Your task to perform on an android device: turn on javascript in the chrome app Image 0: 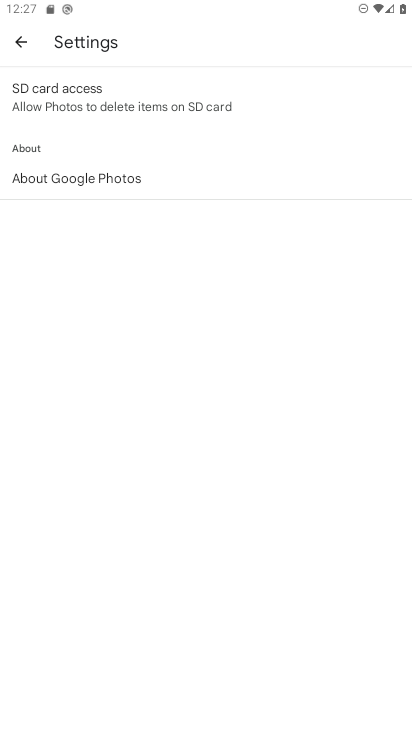
Step 0: press home button
Your task to perform on an android device: turn on javascript in the chrome app Image 1: 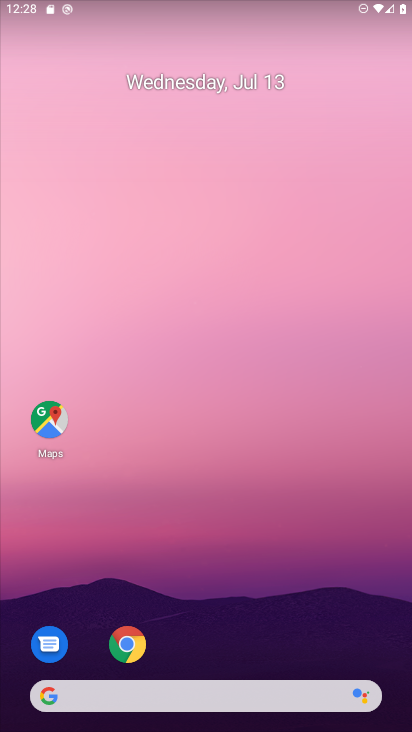
Step 1: click (133, 642)
Your task to perform on an android device: turn on javascript in the chrome app Image 2: 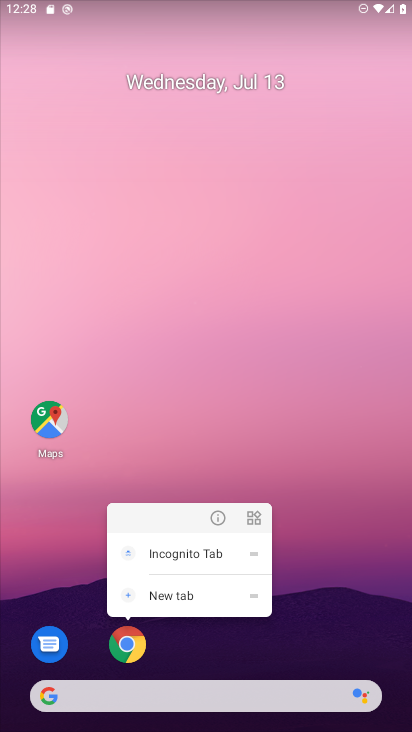
Step 2: click (133, 642)
Your task to perform on an android device: turn on javascript in the chrome app Image 3: 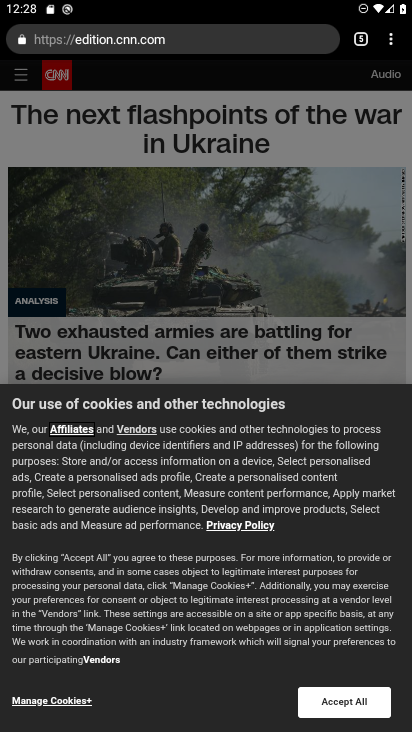
Step 3: click (391, 42)
Your task to perform on an android device: turn on javascript in the chrome app Image 4: 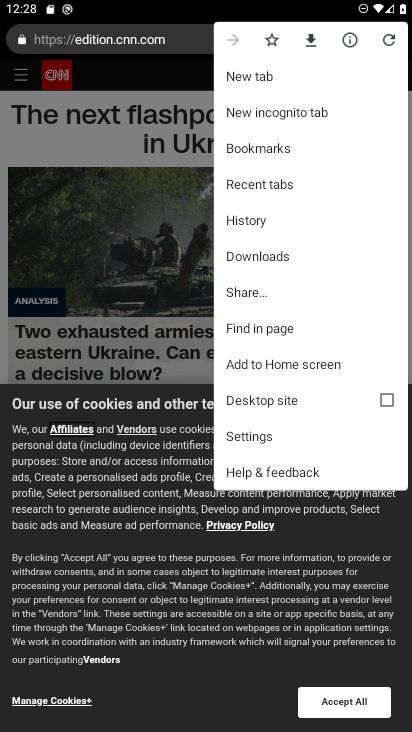
Step 4: click (244, 433)
Your task to perform on an android device: turn on javascript in the chrome app Image 5: 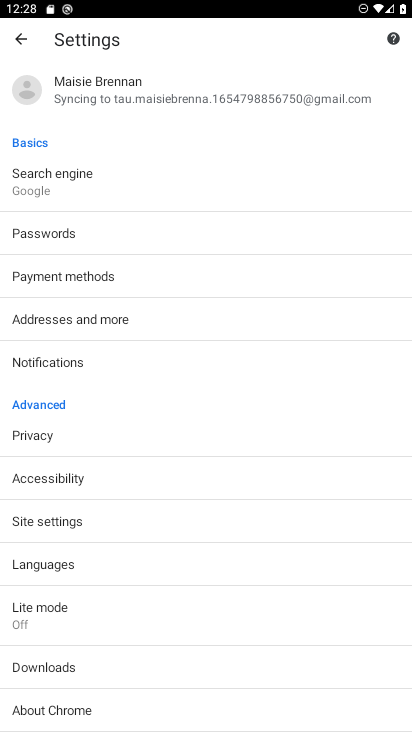
Step 5: click (66, 513)
Your task to perform on an android device: turn on javascript in the chrome app Image 6: 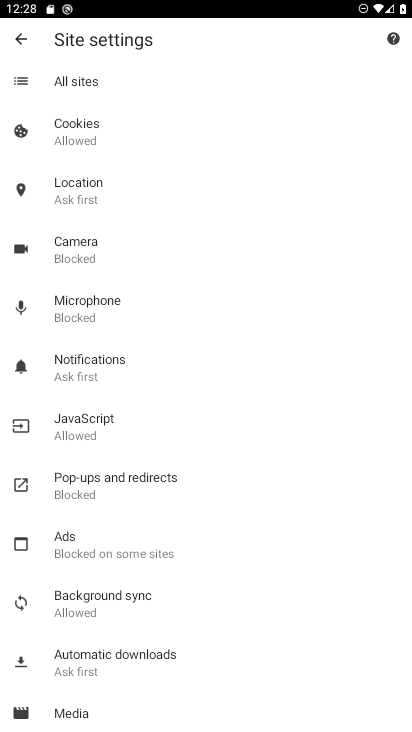
Step 6: click (90, 421)
Your task to perform on an android device: turn on javascript in the chrome app Image 7: 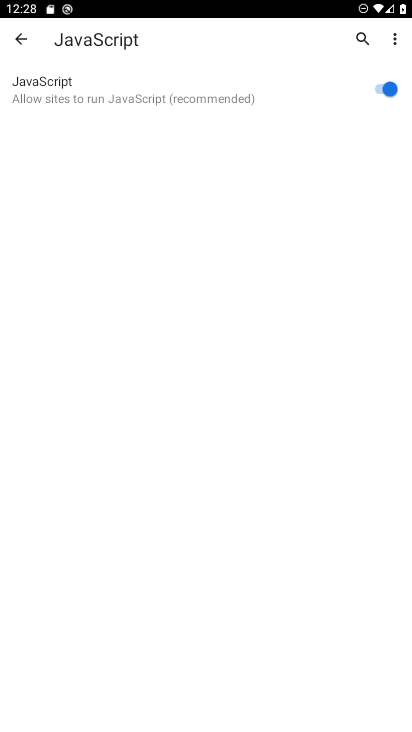
Step 7: task complete